Your task to perform on an android device: open the mobile data screen to see how much data has been used Image 0: 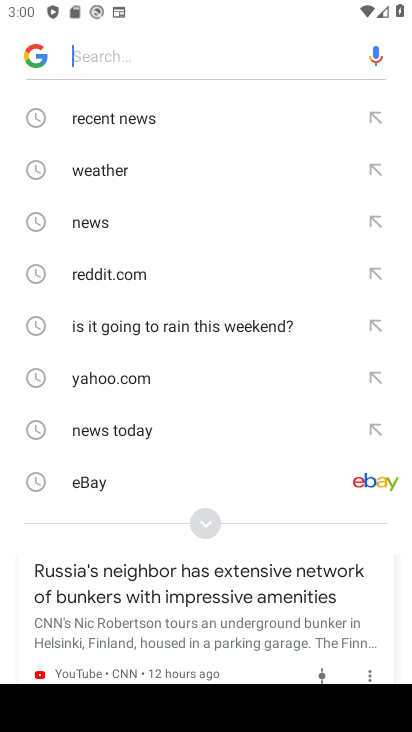
Step 0: press back button
Your task to perform on an android device: open the mobile data screen to see how much data has been used Image 1: 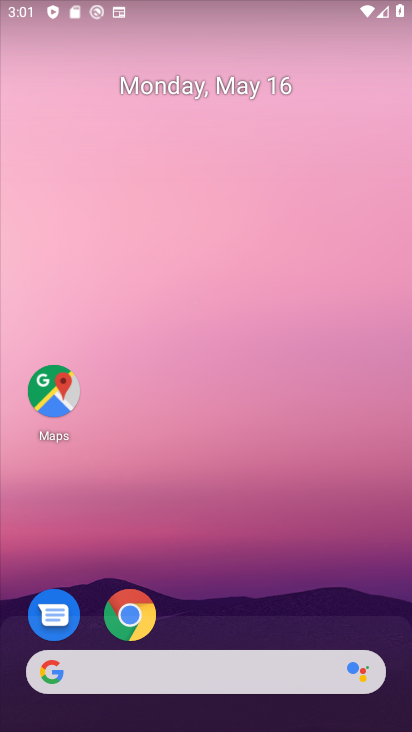
Step 1: drag from (252, 645) to (338, 141)
Your task to perform on an android device: open the mobile data screen to see how much data has been used Image 2: 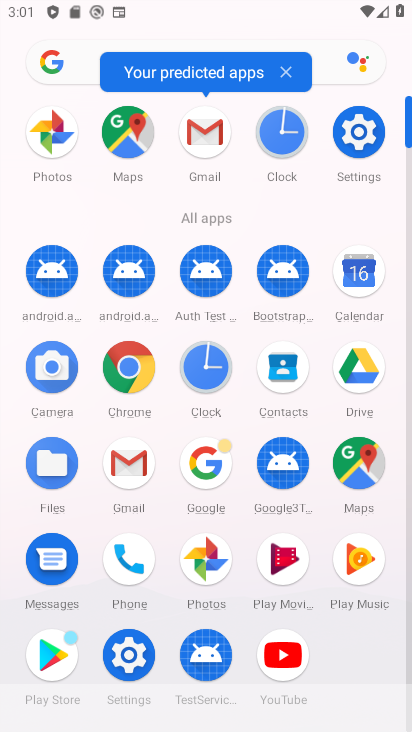
Step 2: click (138, 665)
Your task to perform on an android device: open the mobile data screen to see how much data has been used Image 3: 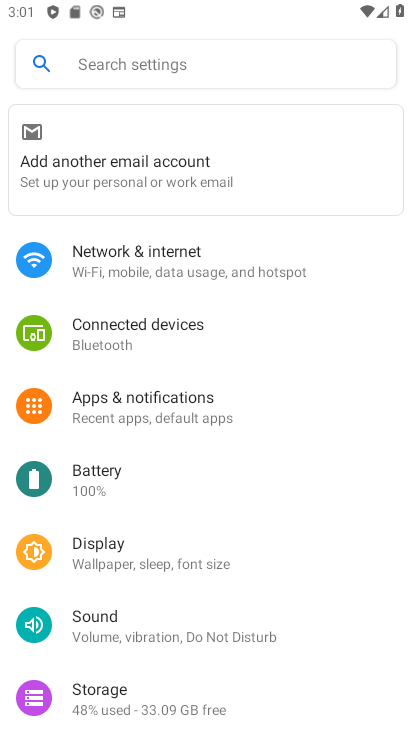
Step 3: click (177, 273)
Your task to perform on an android device: open the mobile data screen to see how much data has been used Image 4: 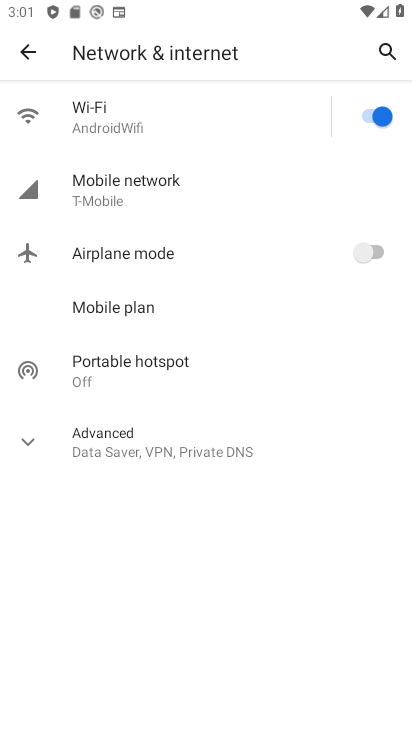
Step 4: click (194, 193)
Your task to perform on an android device: open the mobile data screen to see how much data has been used Image 5: 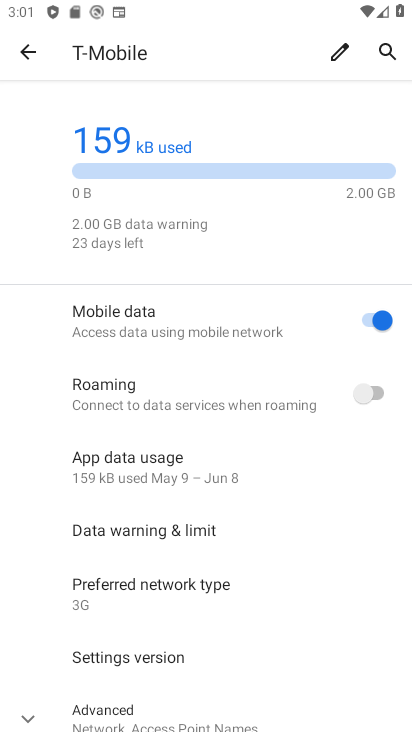
Step 5: task complete